Your task to perform on an android device: change timer sound Image 0: 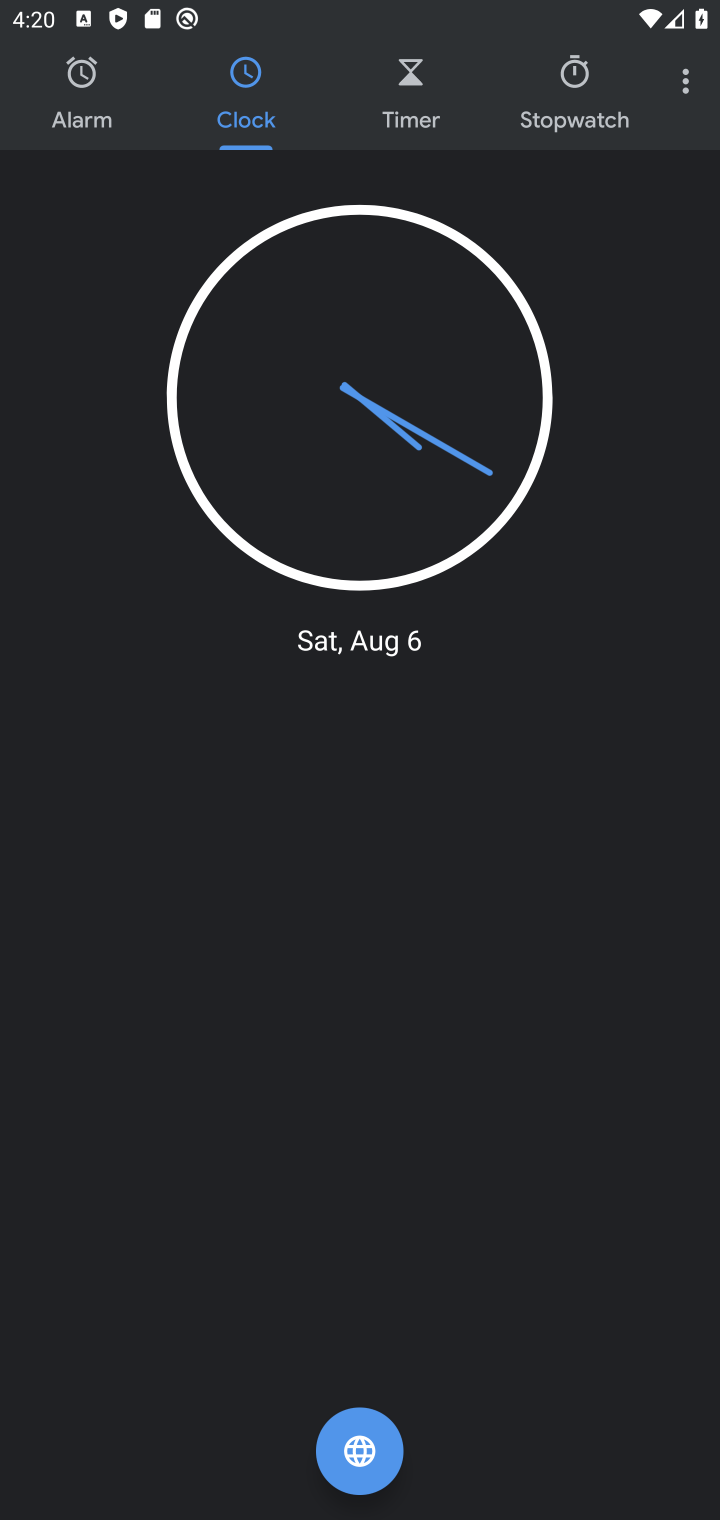
Step 0: click (687, 79)
Your task to perform on an android device: change timer sound Image 1: 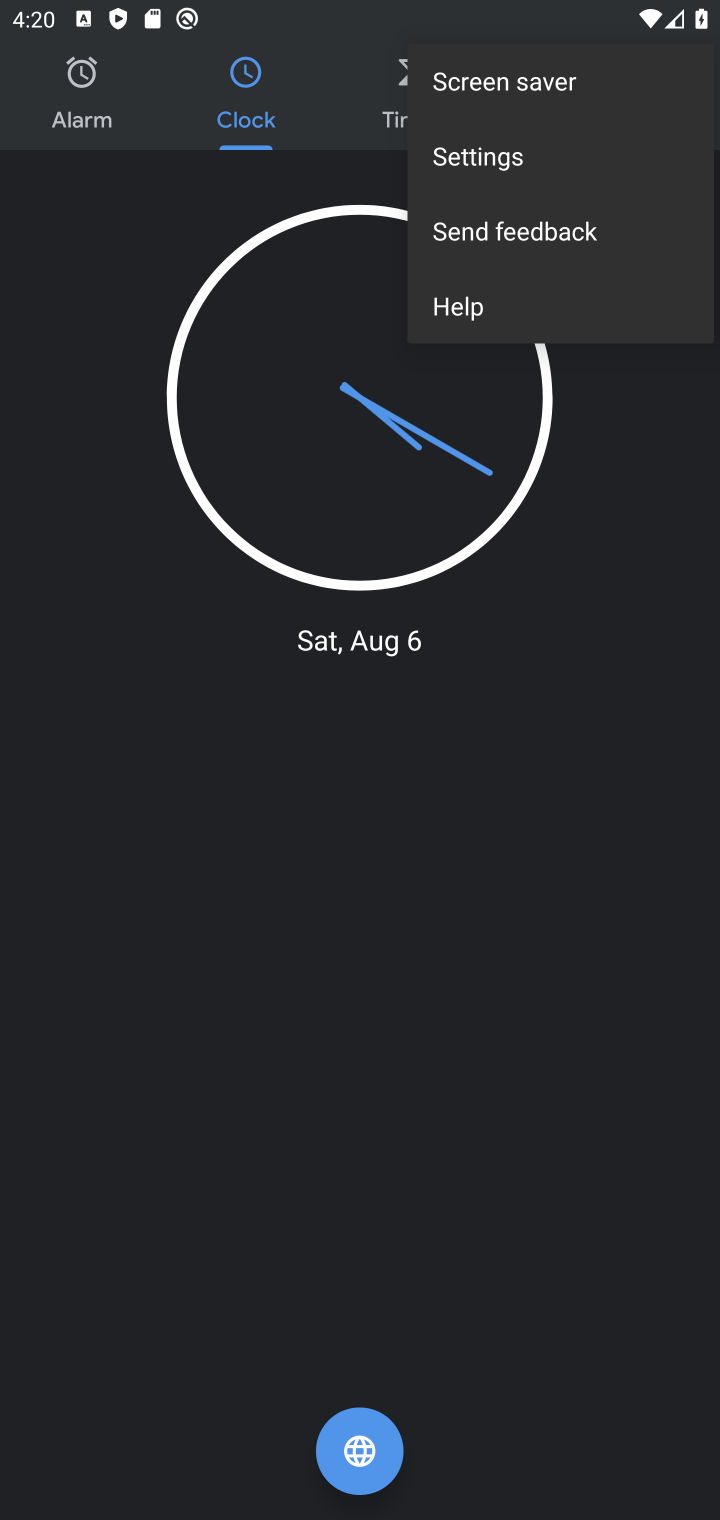
Step 1: click (548, 161)
Your task to perform on an android device: change timer sound Image 2: 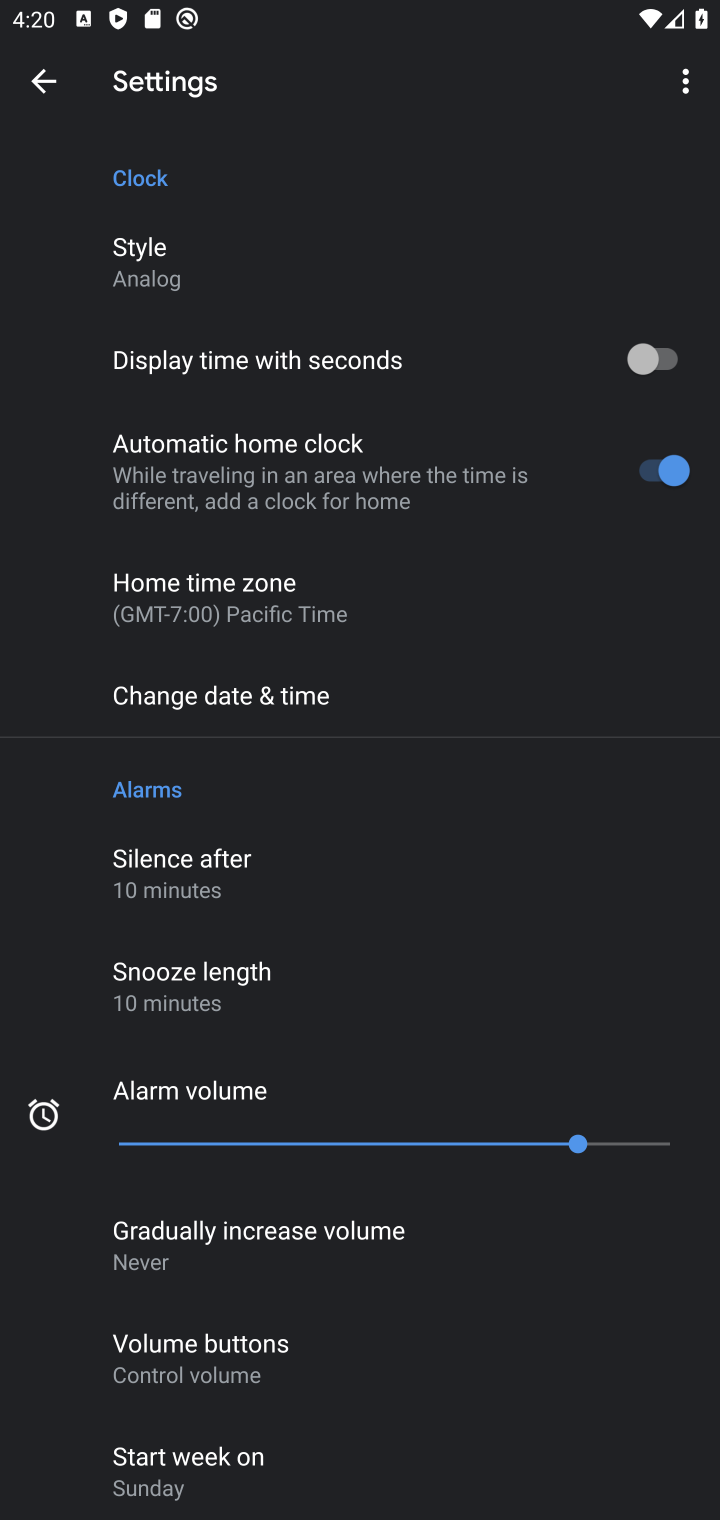
Step 2: drag from (467, 1378) to (454, 363)
Your task to perform on an android device: change timer sound Image 3: 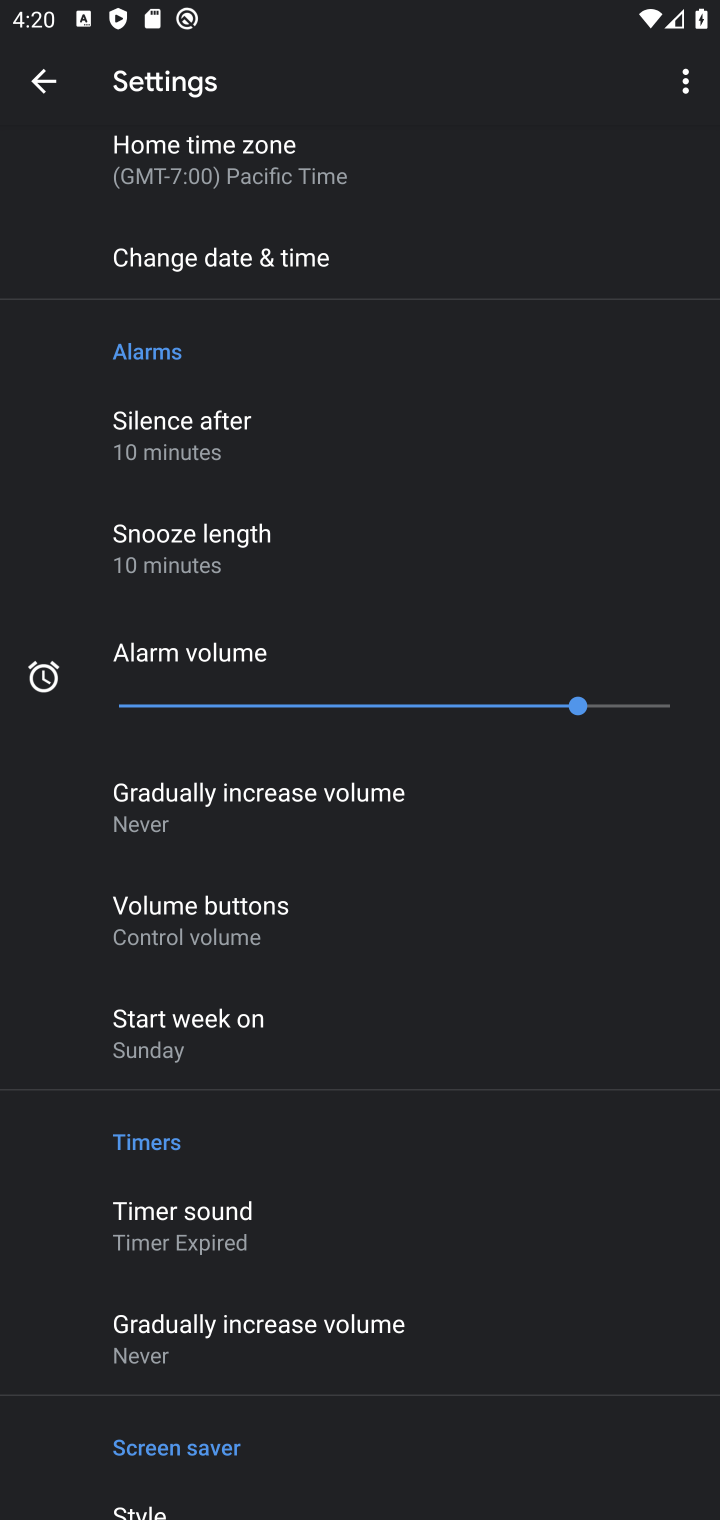
Step 3: click (258, 1234)
Your task to perform on an android device: change timer sound Image 4: 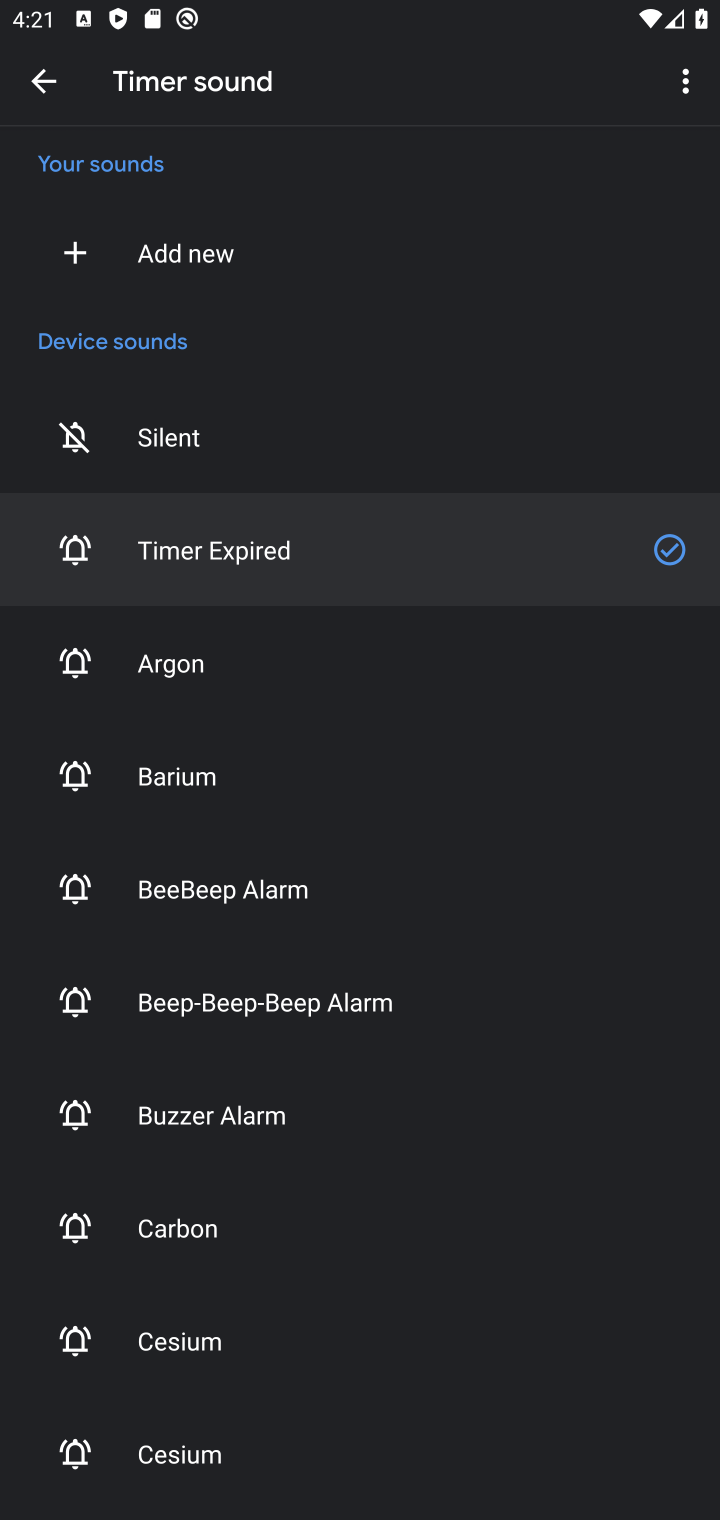
Step 4: click (191, 651)
Your task to perform on an android device: change timer sound Image 5: 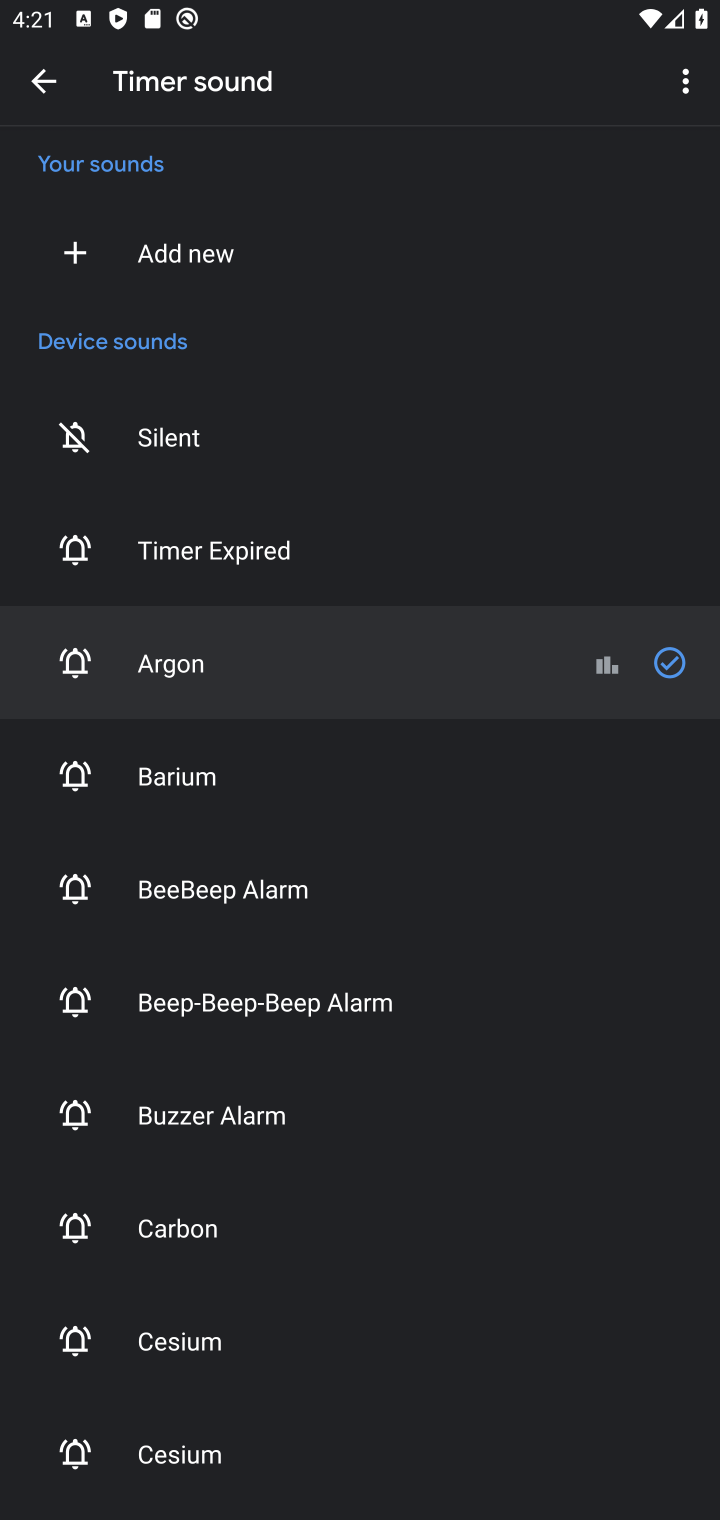
Step 5: task complete